Your task to perform on an android device: open app "Paramount+ | Peak Streaming" (install if not already installed) Image 0: 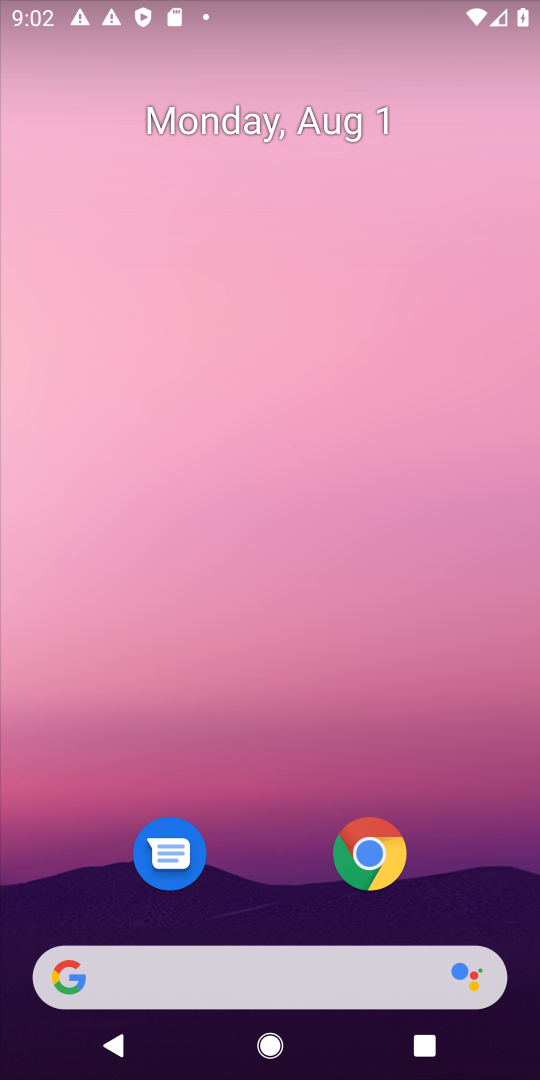
Step 0: drag from (271, 922) to (503, 94)
Your task to perform on an android device: open app "Paramount+ | Peak Streaming" (install if not already installed) Image 1: 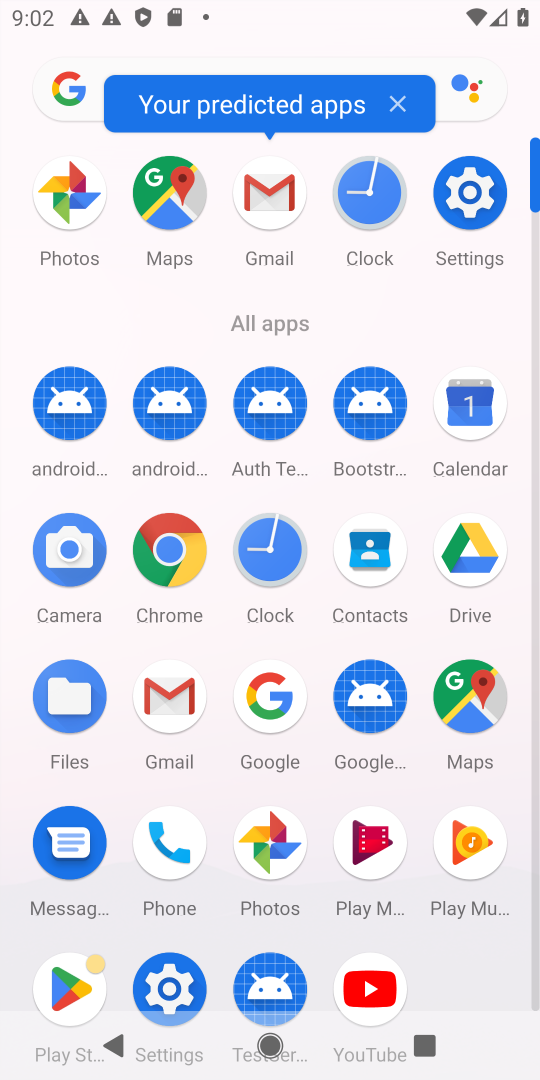
Step 1: drag from (210, 886) to (235, 483)
Your task to perform on an android device: open app "Paramount+ | Peak Streaming" (install if not already installed) Image 2: 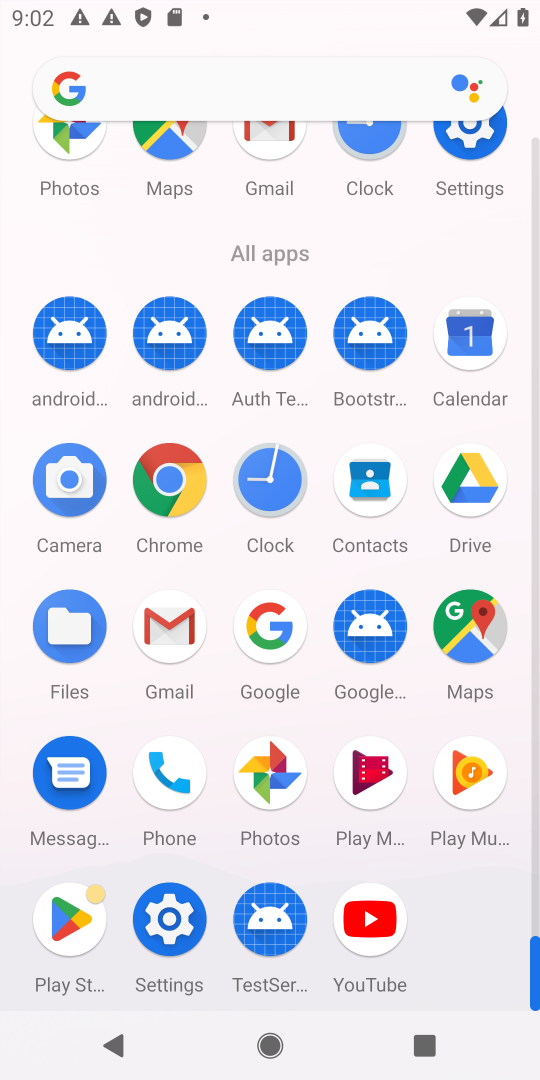
Step 2: click (80, 930)
Your task to perform on an android device: open app "Paramount+ | Peak Streaming" (install if not already installed) Image 3: 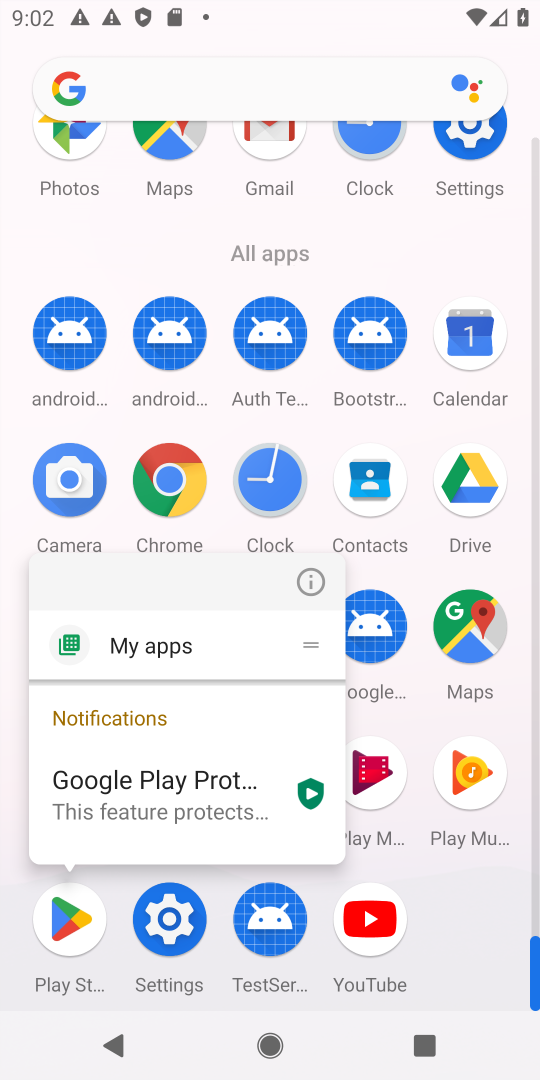
Step 3: click (306, 579)
Your task to perform on an android device: open app "Paramount+ | Peak Streaming" (install if not already installed) Image 4: 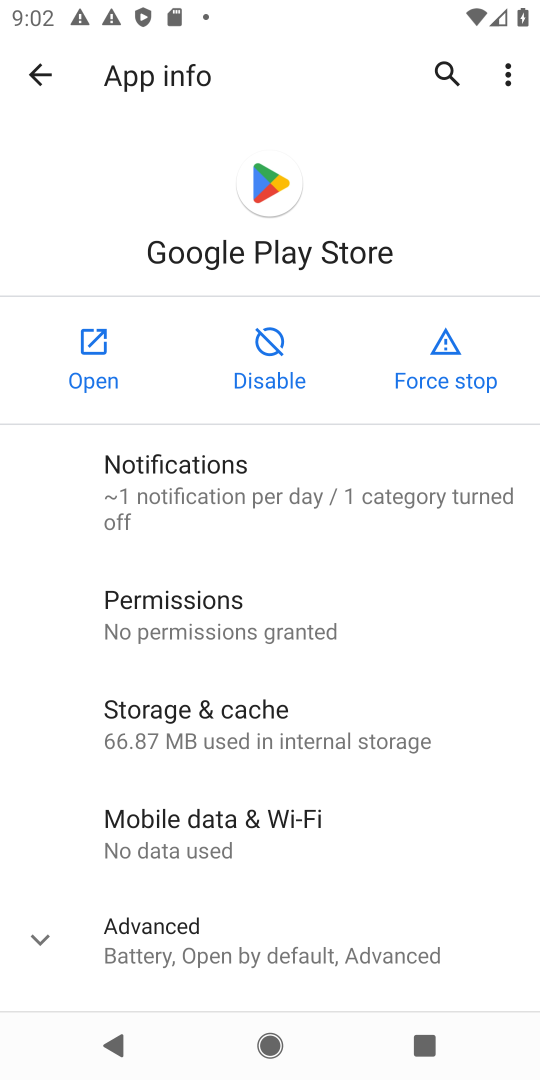
Step 4: click (101, 339)
Your task to perform on an android device: open app "Paramount+ | Peak Streaming" (install if not already installed) Image 5: 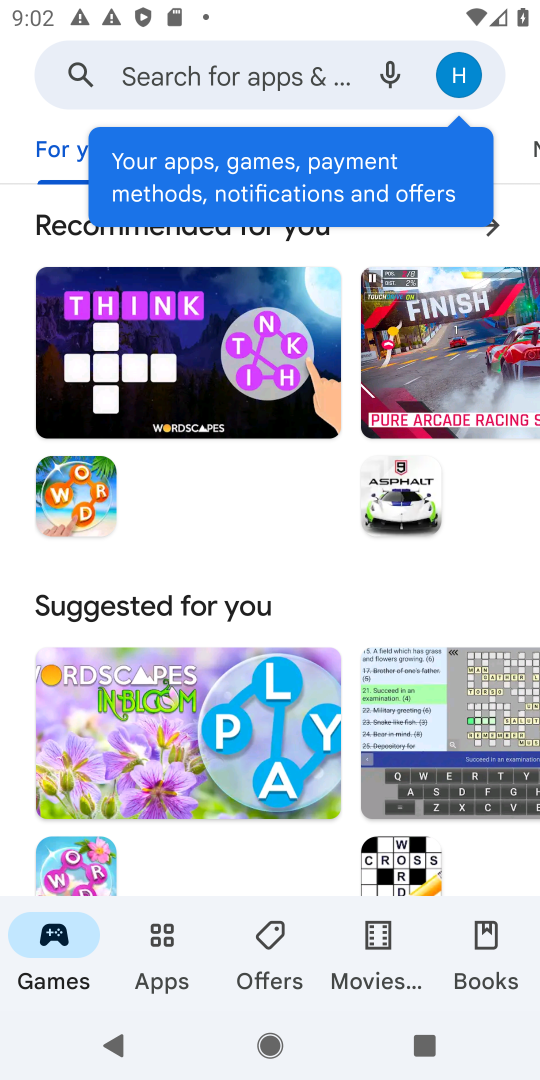
Step 5: click (159, 87)
Your task to perform on an android device: open app "Paramount+ | Peak Streaming" (install if not already installed) Image 6: 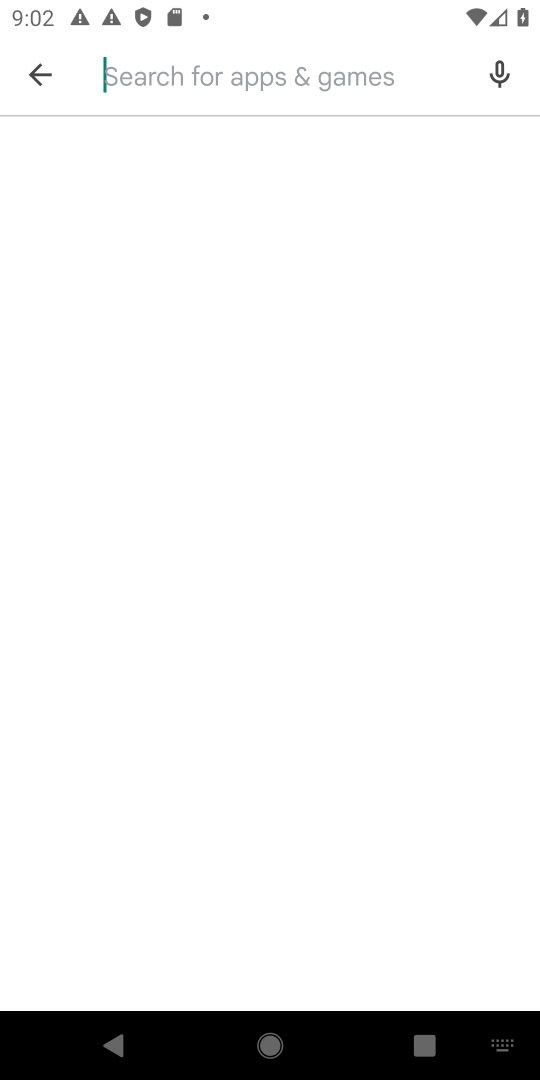
Step 6: type "Paramount+ | Peak Streaming"
Your task to perform on an android device: open app "Paramount+ | Peak Streaming" (install if not already installed) Image 7: 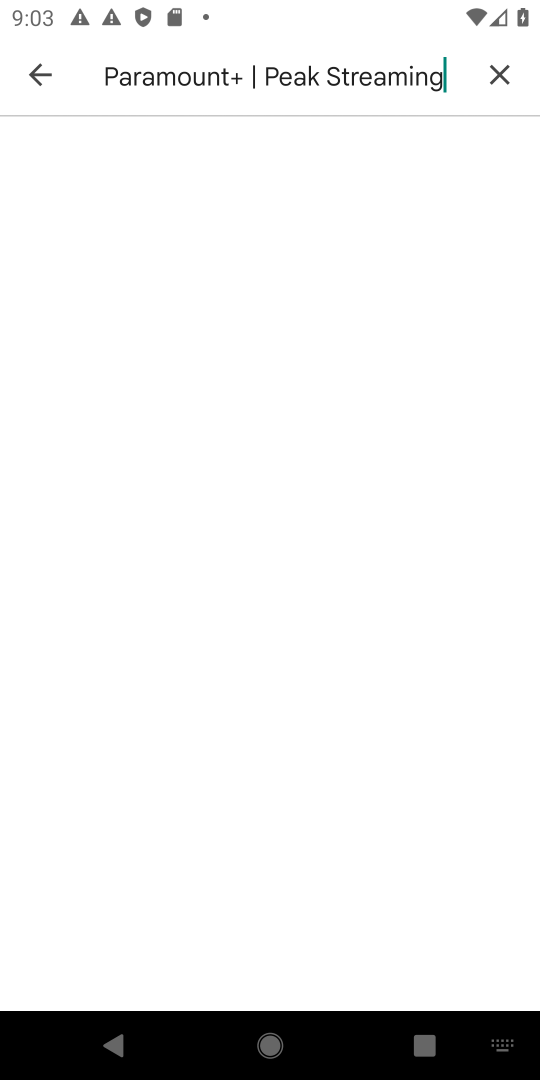
Step 7: type ""
Your task to perform on an android device: open app "Paramount+ | Peak Streaming" (install if not already installed) Image 8: 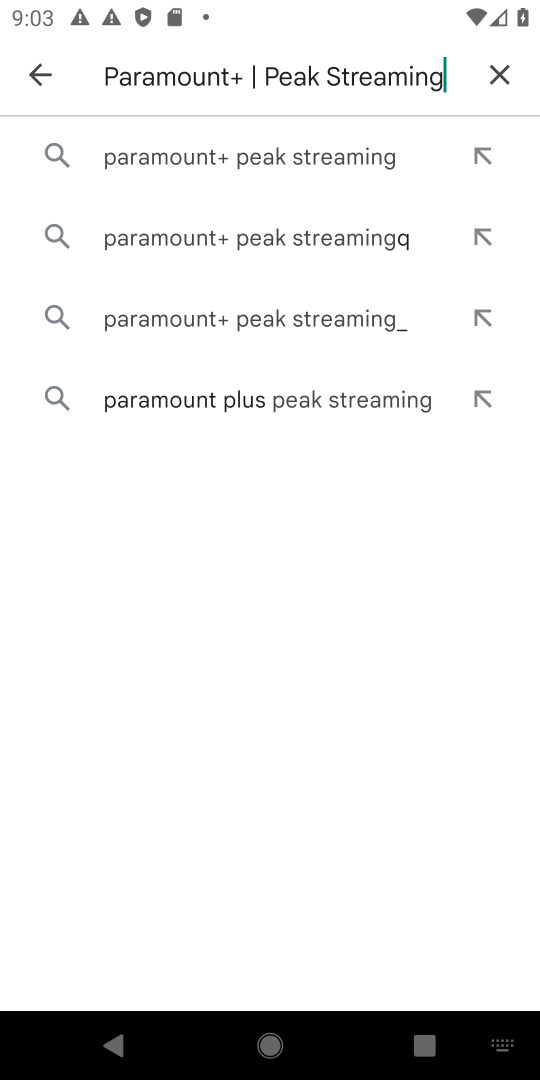
Step 8: click (233, 153)
Your task to perform on an android device: open app "Paramount+ | Peak Streaming" (install if not already installed) Image 9: 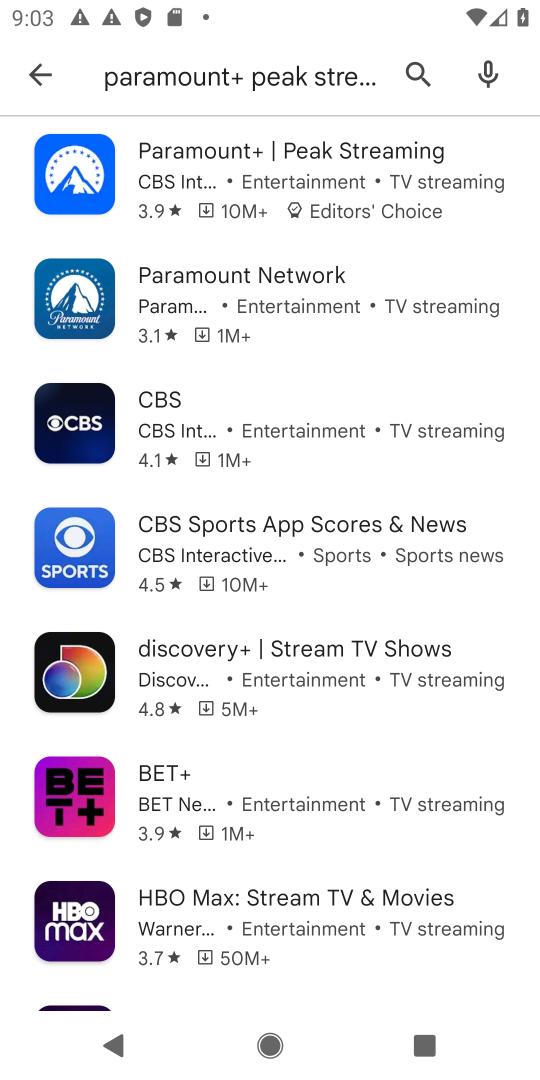
Step 9: click (266, 173)
Your task to perform on an android device: open app "Paramount+ | Peak Streaming" (install if not already installed) Image 10: 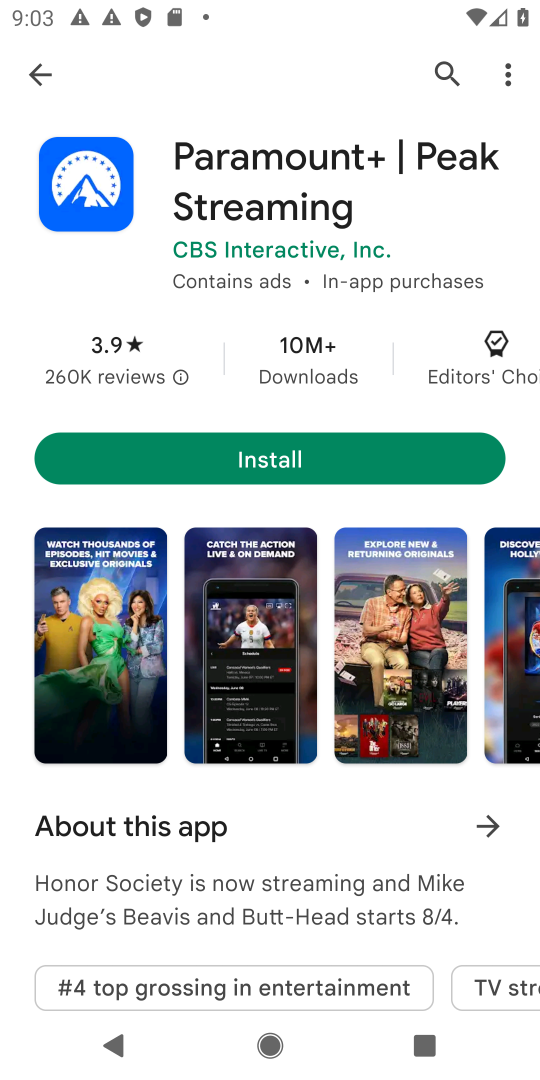
Step 10: click (191, 456)
Your task to perform on an android device: open app "Paramount+ | Peak Streaming" (install if not already installed) Image 11: 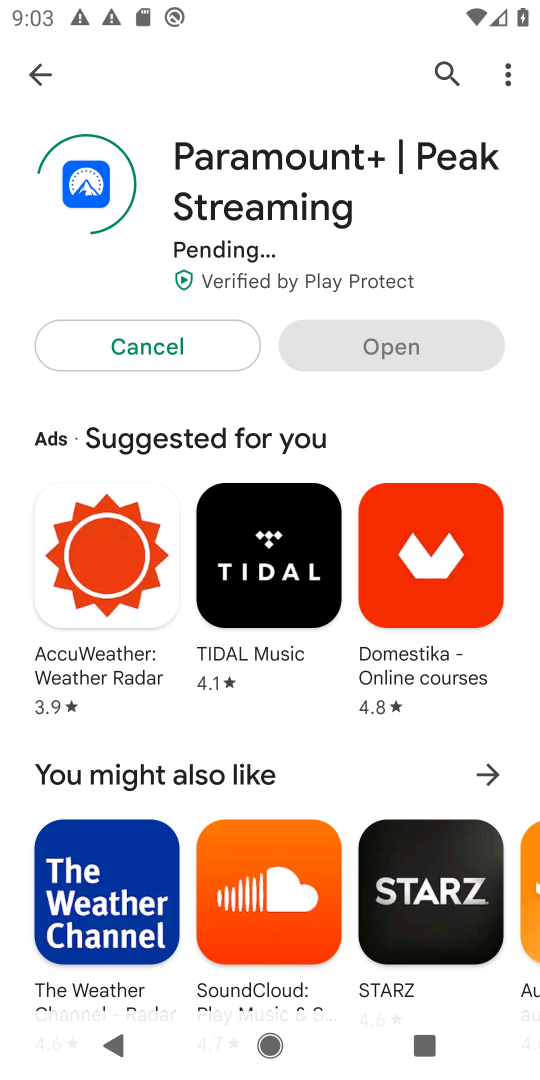
Step 11: click (380, 182)
Your task to perform on an android device: open app "Paramount+ | Peak Streaming" (install if not already installed) Image 12: 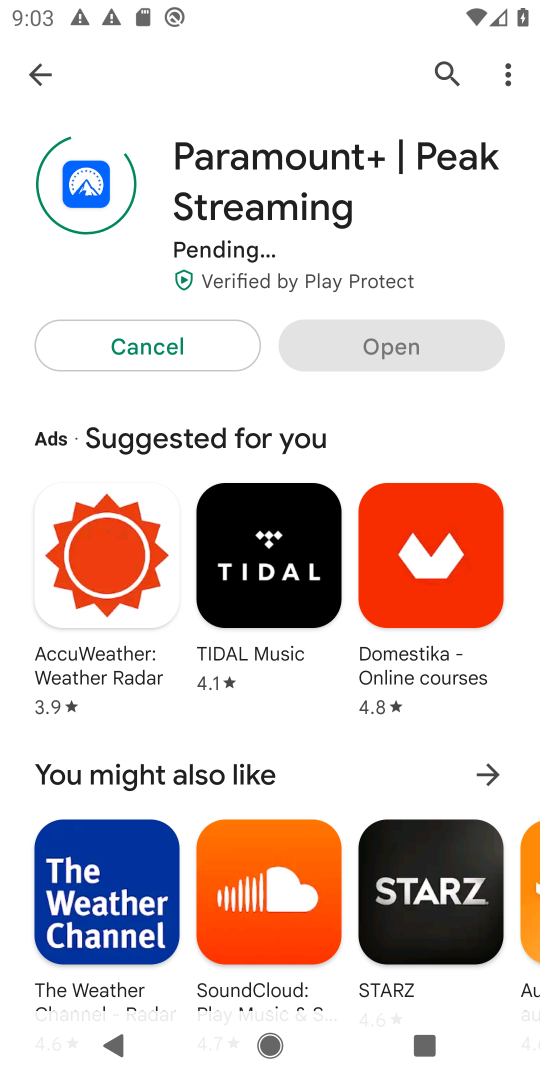
Step 12: click (290, 176)
Your task to perform on an android device: open app "Paramount+ | Peak Streaming" (install if not already installed) Image 13: 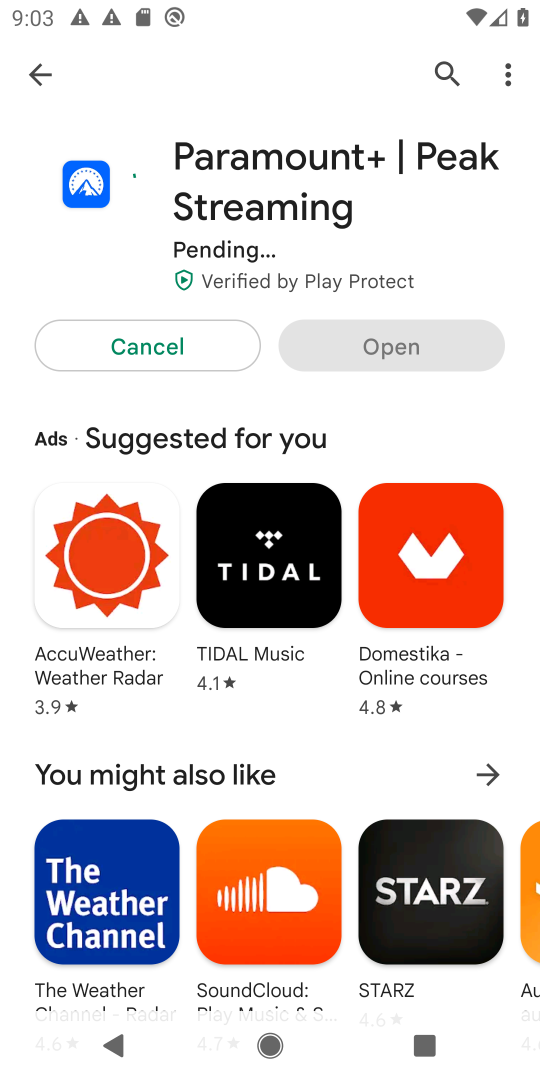
Step 13: click (438, 343)
Your task to perform on an android device: open app "Paramount+ | Peak Streaming" (install if not already installed) Image 14: 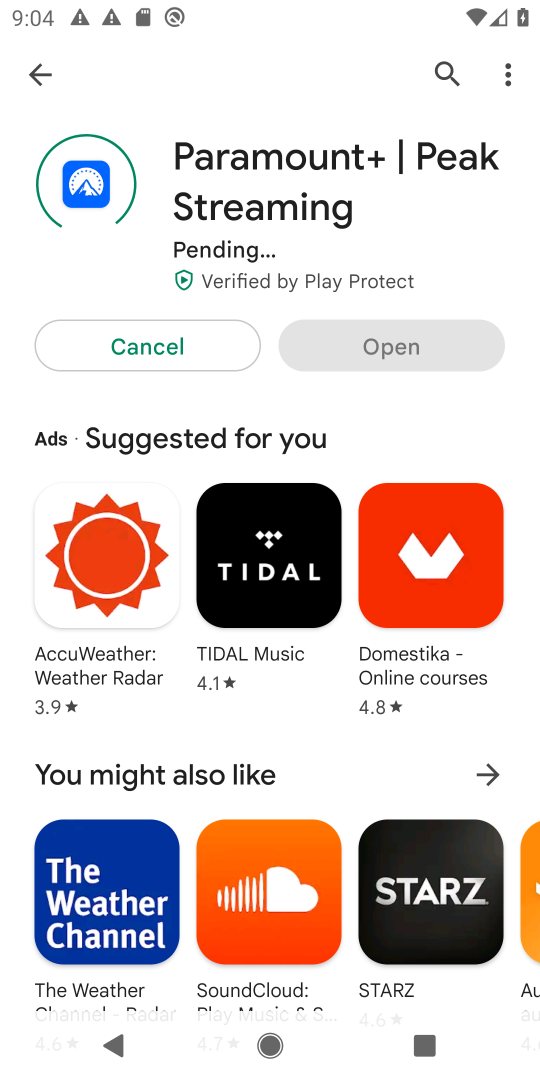
Step 14: click (248, 177)
Your task to perform on an android device: open app "Paramount+ | Peak Streaming" (install if not already installed) Image 15: 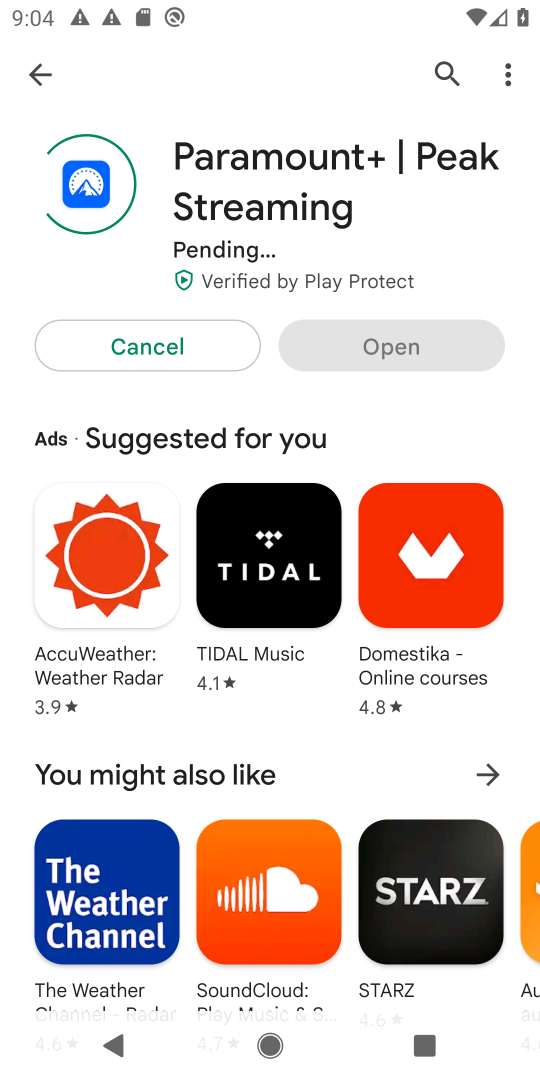
Step 15: click (41, 83)
Your task to perform on an android device: open app "Paramount+ | Peak Streaming" (install if not already installed) Image 16: 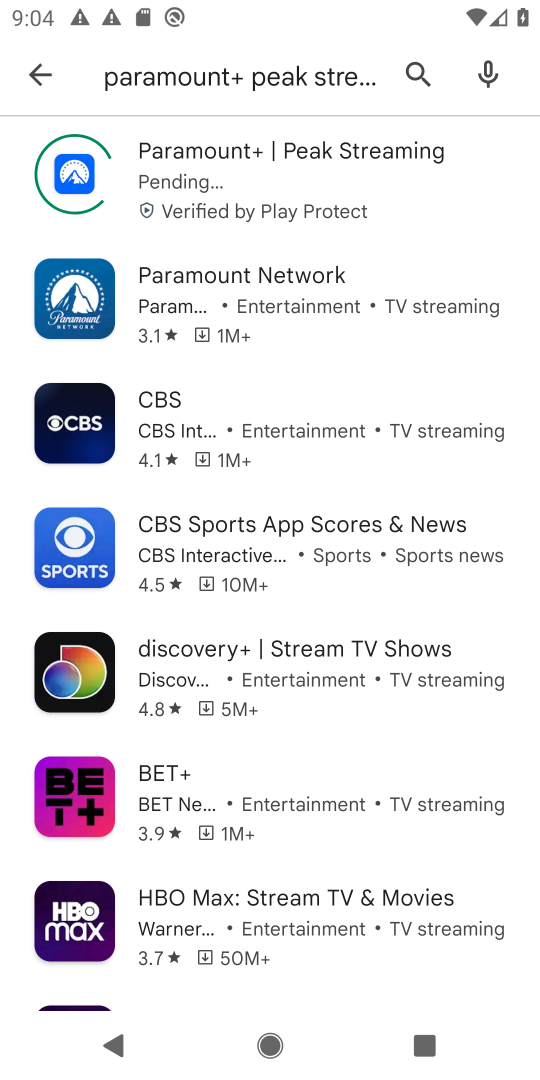
Step 16: click (58, 83)
Your task to perform on an android device: open app "Paramount+ | Peak Streaming" (install if not already installed) Image 17: 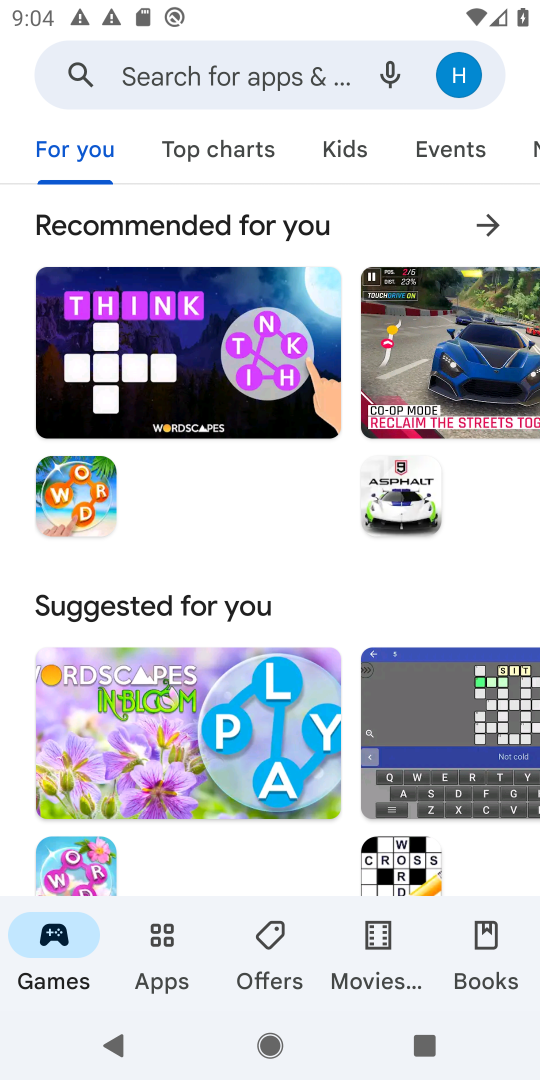
Step 17: click (445, 76)
Your task to perform on an android device: open app "Paramount+ | Peak Streaming" (install if not already installed) Image 18: 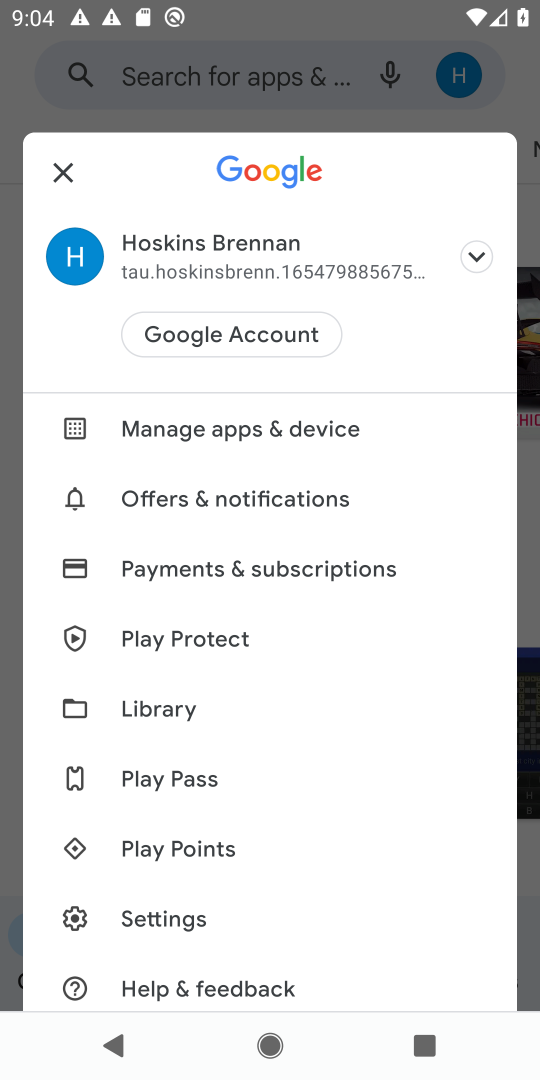
Step 18: click (264, 410)
Your task to perform on an android device: open app "Paramount+ | Peak Streaming" (install if not already installed) Image 19: 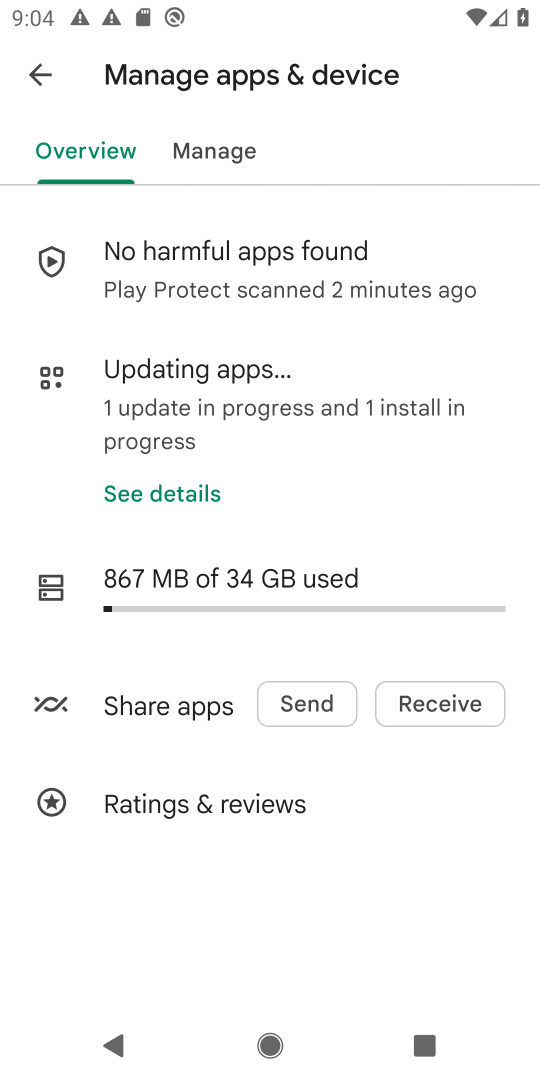
Step 19: click (221, 390)
Your task to perform on an android device: open app "Paramount+ | Peak Streaming" (install if not already installed) Image 20: 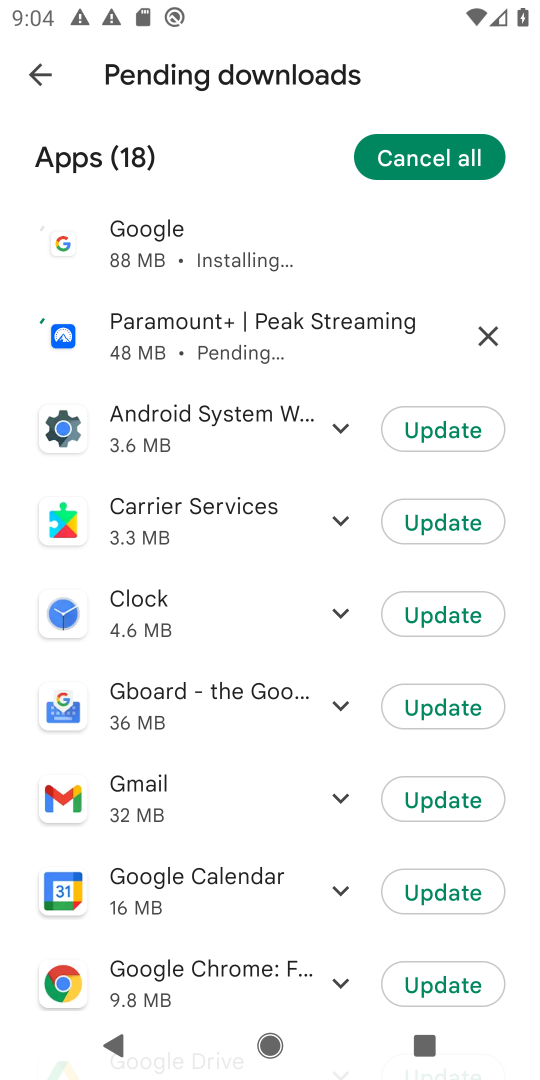
Step 20: click (141, 244)
Your task to perform on an android device: open app "Paramount+ | Peak Streaming" (install if not already installed) Image 21: 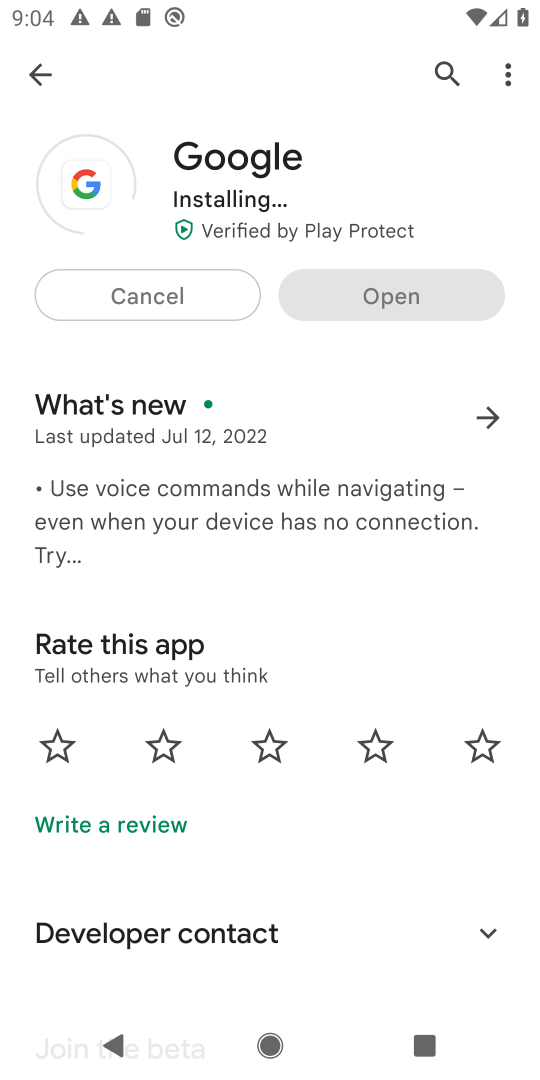
Step 21: click (189, 295)
Your task to perform on an android device: open app "Paramount+ | Peak Streaming" (install if not already installed) Image 22: 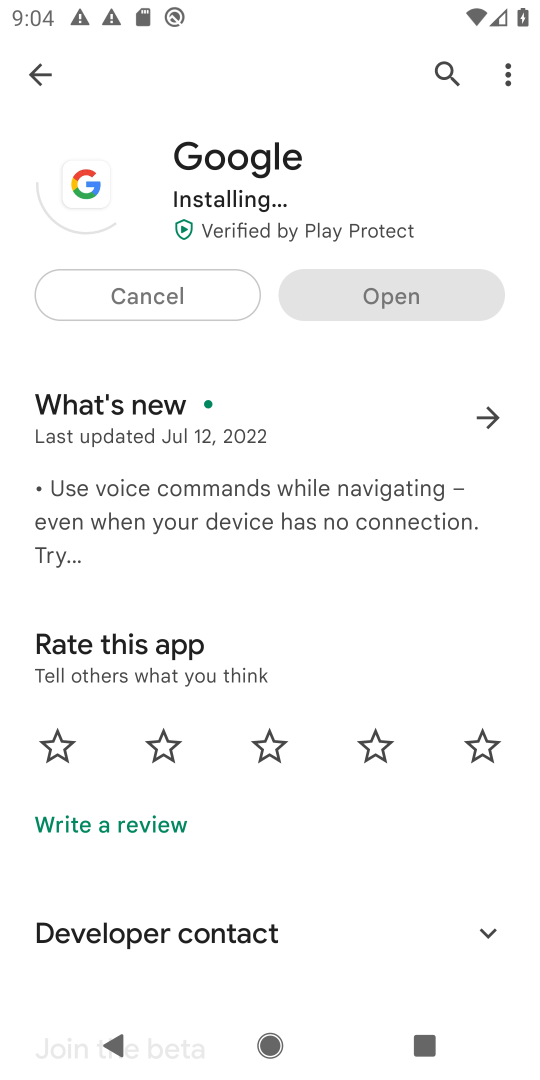
Step 22: click (35, 77)
Your task to perform on an android device: open app "Paramount+ | Peak Streaming" (install if not already installed) Image 23: 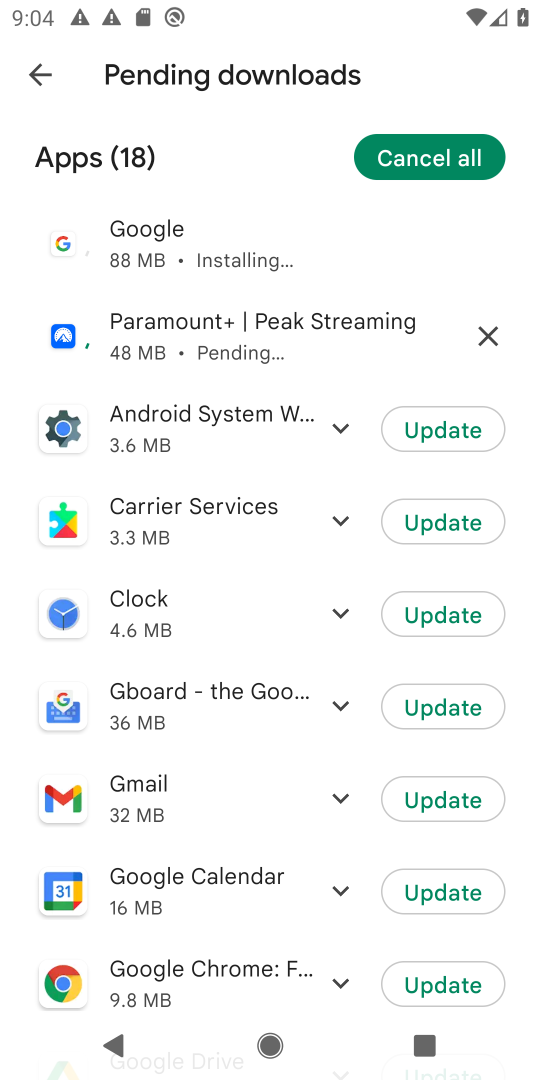
Step 23: click (182, 329)
Your task to perform on an android device: open app "Paramount+ | Peak Streaming" (install if not already installed) Image 24: 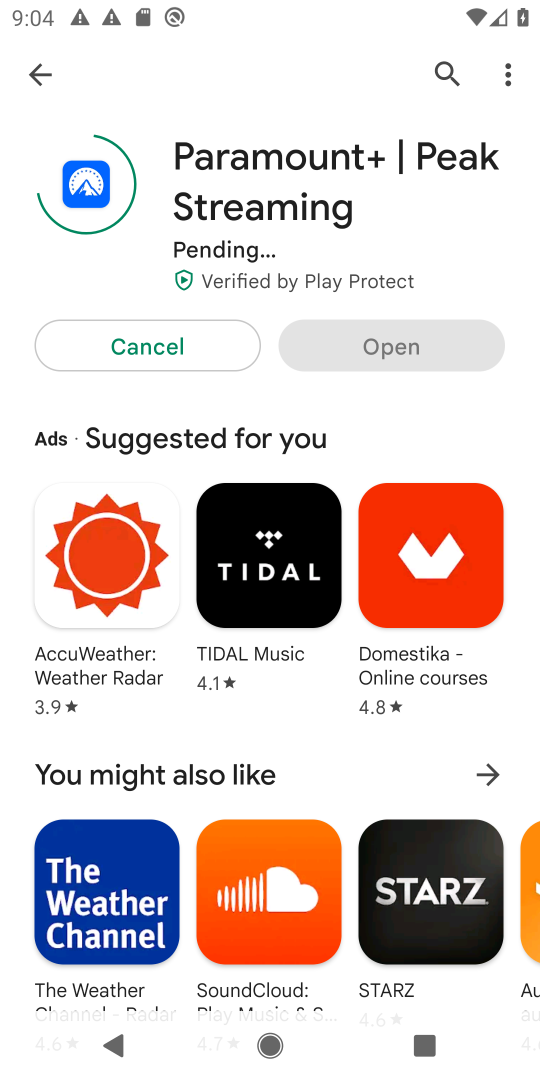
Step 24: click (271, 187)
Your task to perform on an android device: open app "Paramount+ | Peak Streaming" (install if not already installed) Image 25: 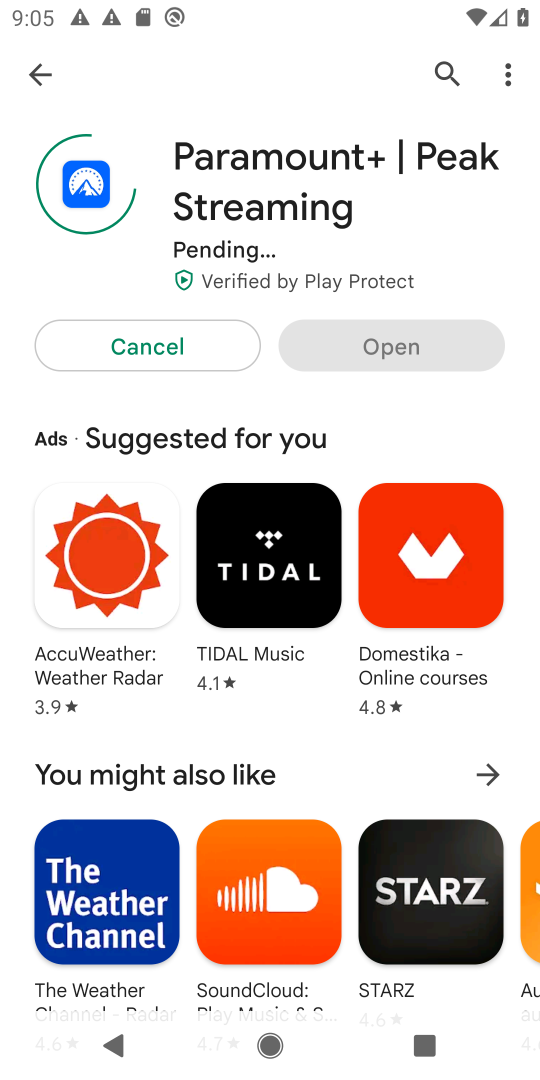
Step 25: click (257, 163)
Your task to perform on an android device: open app "Paramount+ | Peak Streaming" (install if not already installed) Image 26: 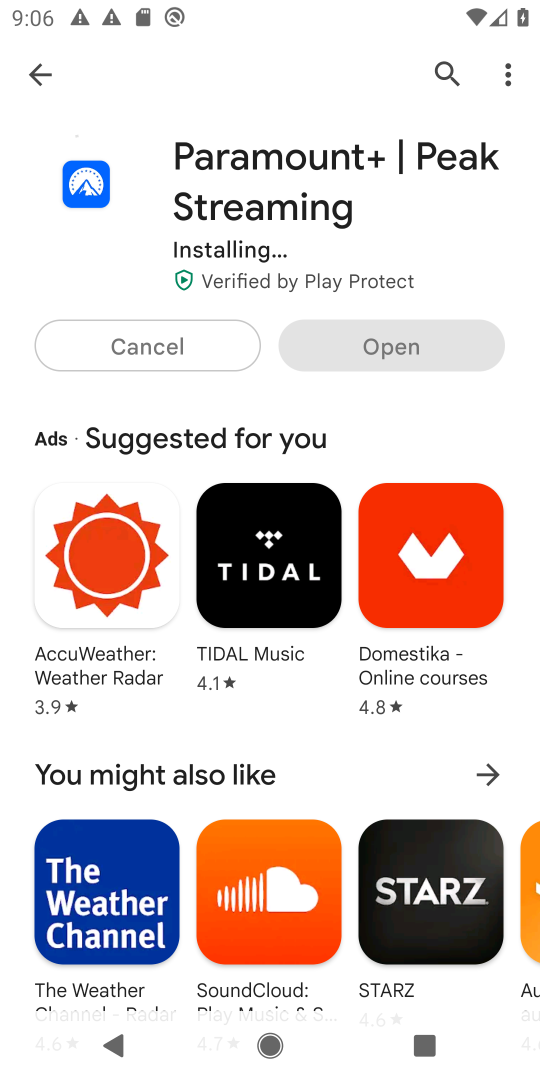
Step 26: click (272, 219)
Your task to perform on an android device: open app "Paramount+ | Peak Streaming" (install if not already installed) Image 27: 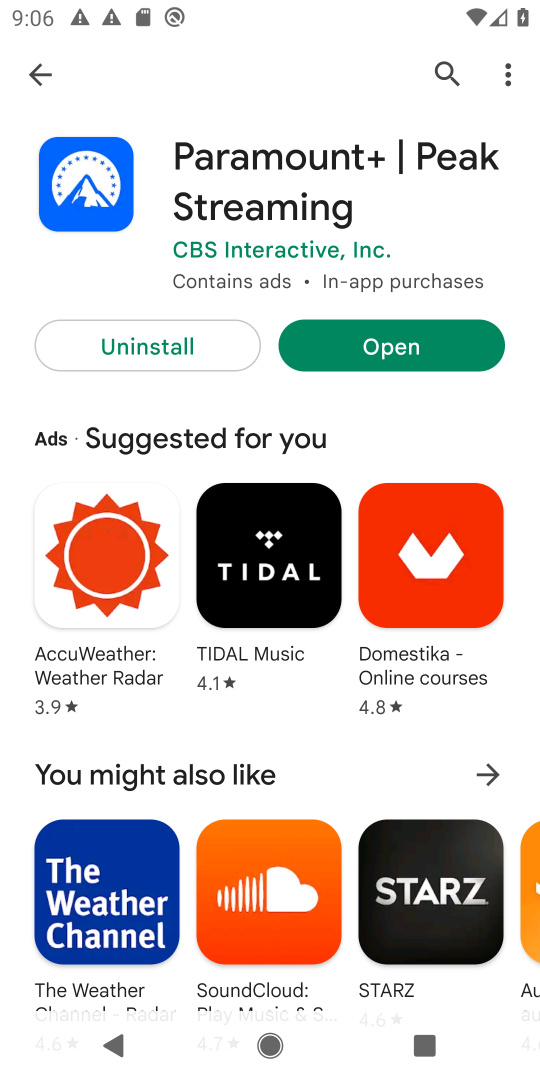
Step 27: click (356, 343)
Your task to perform on an android device: open app "Paramount+ | Peak Streaming" (install if not already installed) Image 28: 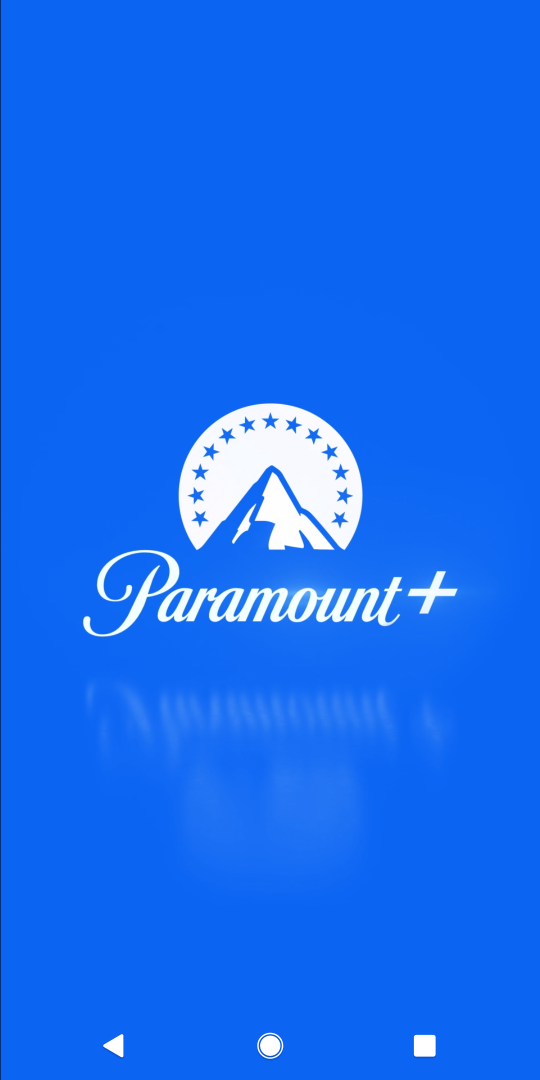
Step 28: task complete